Your task to perform on an android device: Set the phone to "Do not disturb". Image 0: 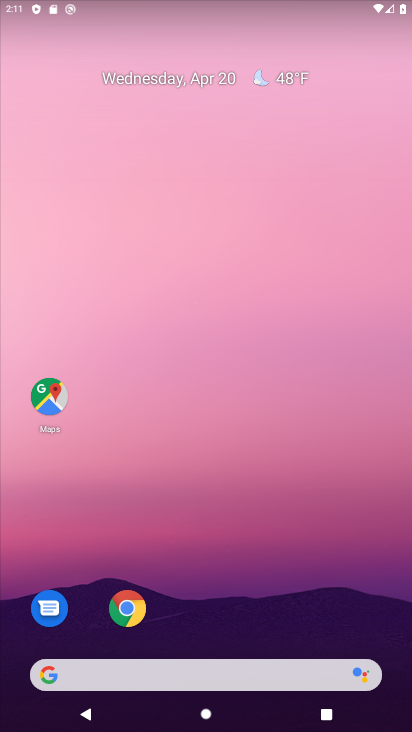
Step 0: drag from (286, 610) to (297, 111)
Your task to perform on an android device: Set the phone to "Do not disturb". Image 1: 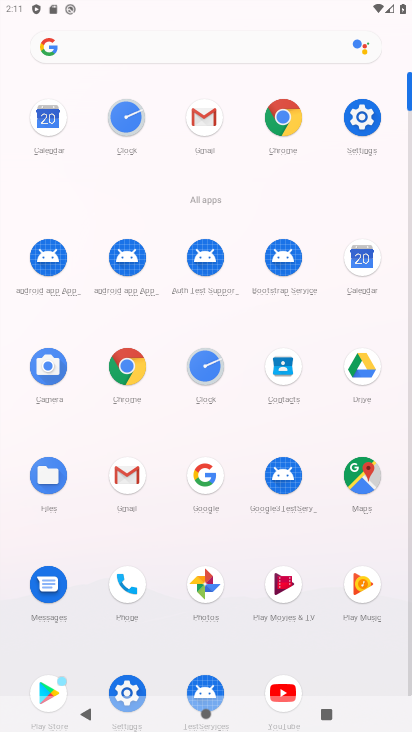
Step 1: click (368, 119)
Your task to perform on an android device: Set the phone to "Do not disturb". Image 2: 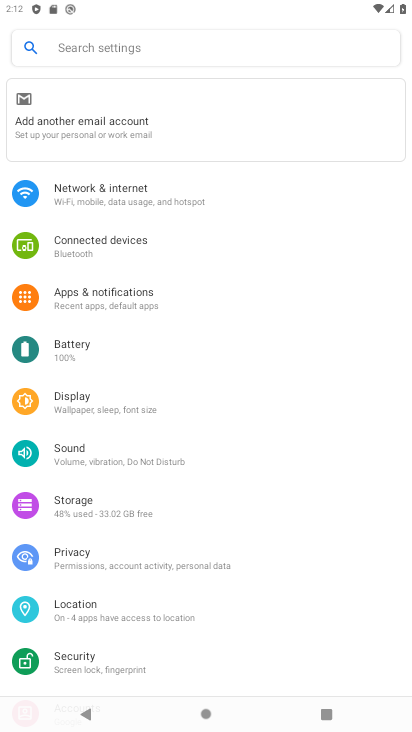
Step 2: click (169, 445)
Your task to perform on an android device: Set the phone to "Do not disturb". Image 3: 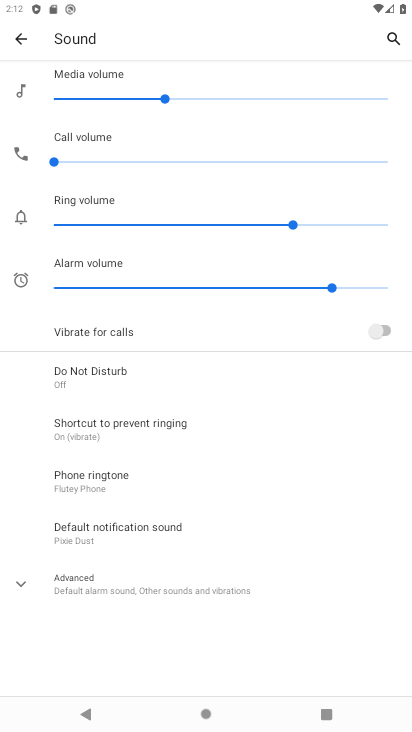
Step 3: drag from (195, 566) to (168, 176)
Your task to perform on an android device: Set the phone to "Do not disturb". Image 4: 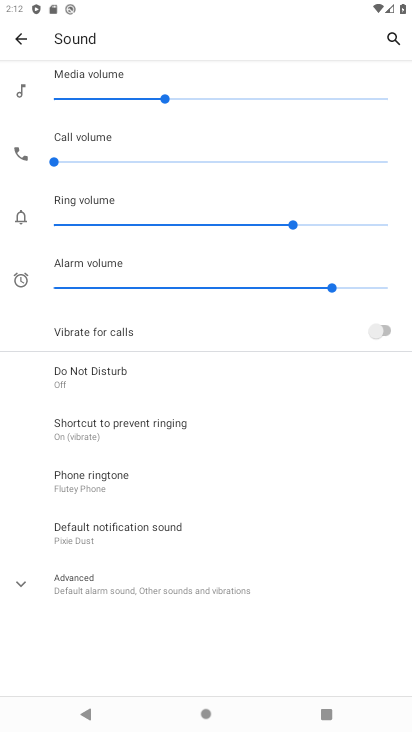
Step 4: click (163, 572)
Your task to perform on an android device: Set the phone to "Do not disturb". Image 5: 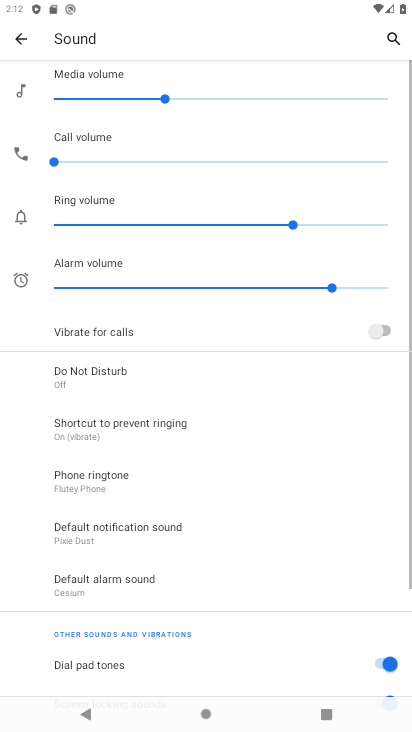
Step 5: click (133, 381)
Your task to perform on an android device: Set the phone to "Do not disturb". Image 6: 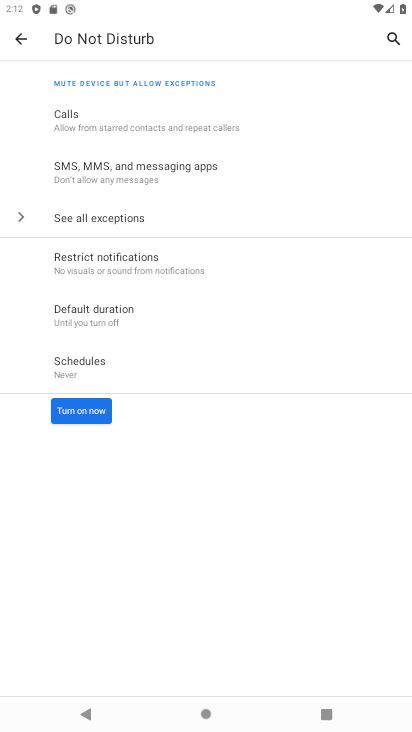
Step 6: click (70, 408)
Your task to perform on an android device: Set the phone to "Do not disturb". Image 7: 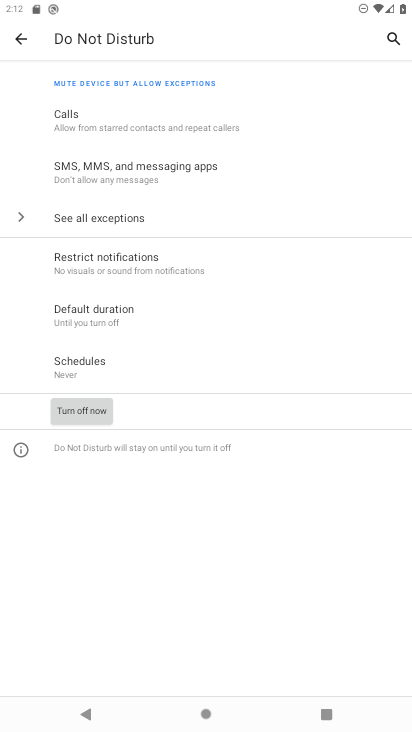
Step 7: task complete